Your task to perform on an android device: show emergency info Image 0: 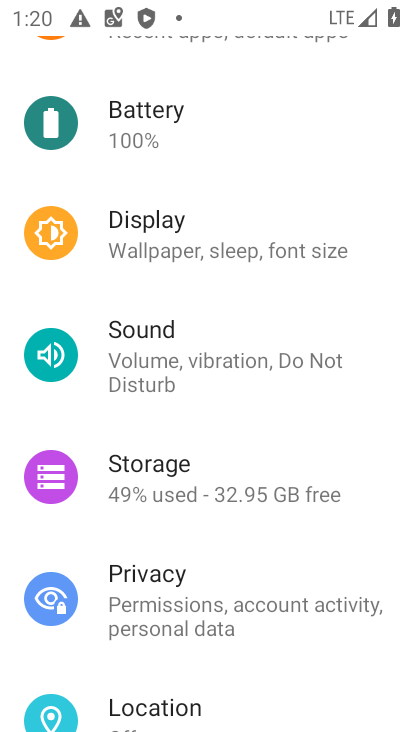
Step 0: drag from (164, 675) to (130, 180)
Your task to perform on an android device: show emergency info Image 1: 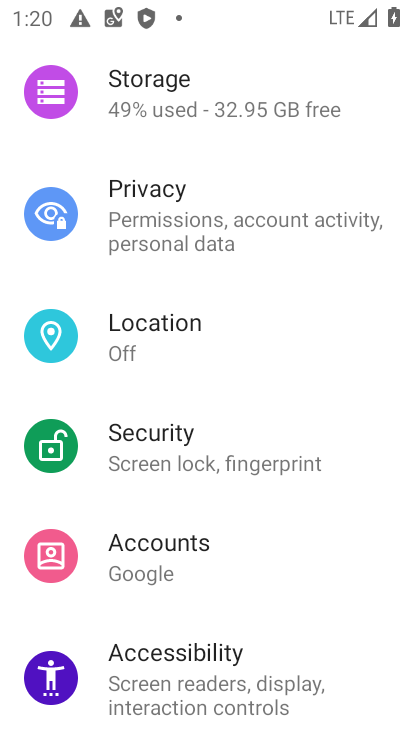
Step 1: drag from (201, 693) to (174, 364)
Your task to perform on an android device: show emergency info Image 2: 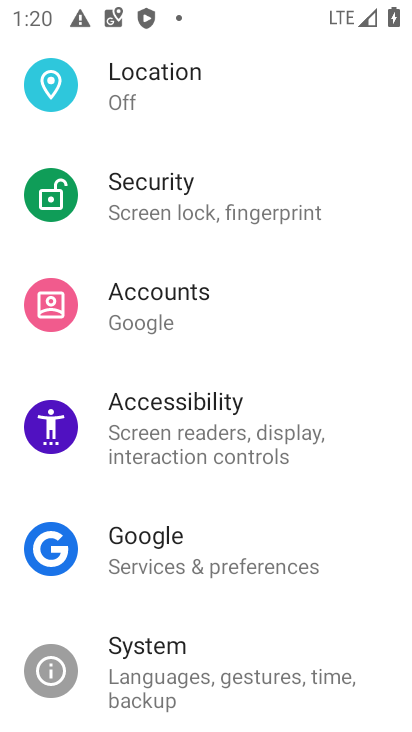
Step 2: drag from (172, 664) to (166, 298)
Your task to perform on an android device: show emergency info Image 3: 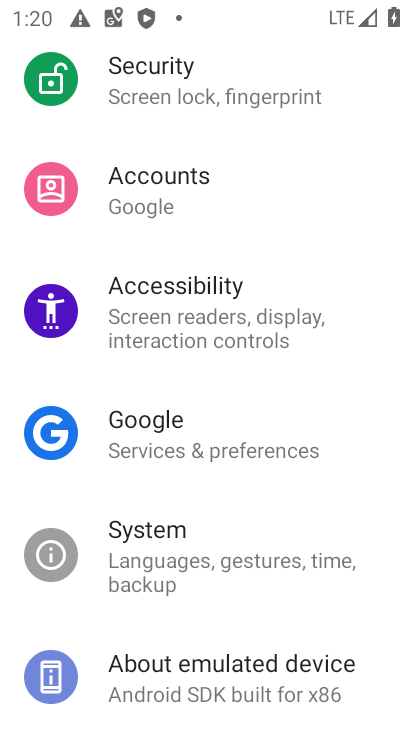
Step 3: click (192, 688)
Your task to perform on an android device: show emergency info Image 4: 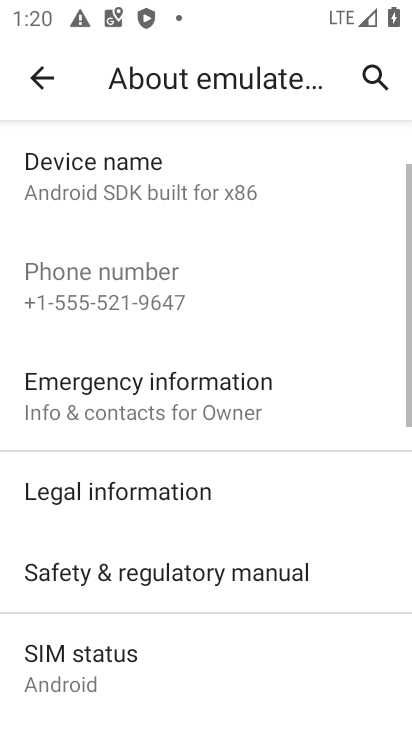
Step 4: click (104, 385)
Your task to perform on an android device: show emergency info Image 5: 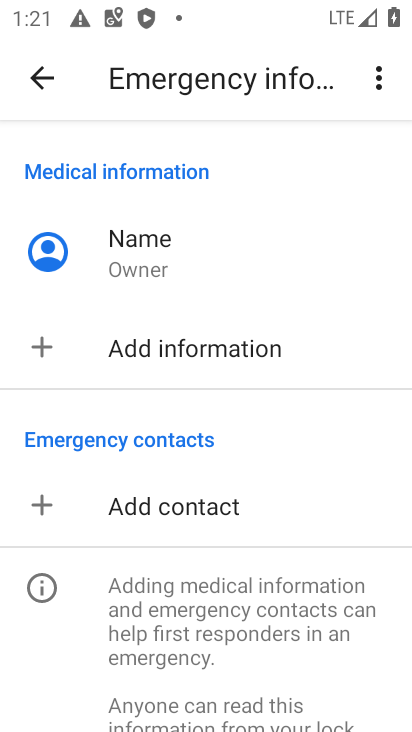
Step 5: task complete